Your task to perform on an android device: Add "razer blade" to the cart on target, then select checkout. Image 0: 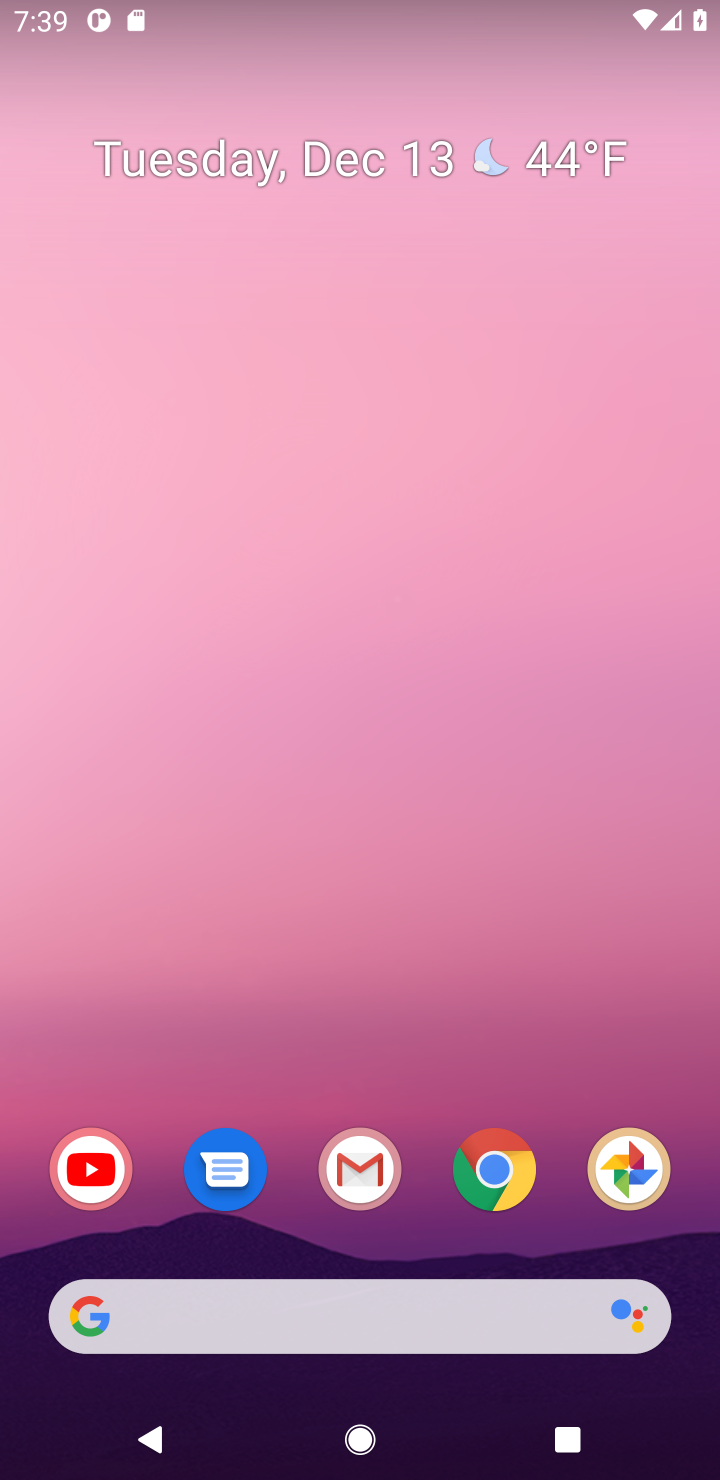
Step 0: click (515, 1158)
Your task to perform on an android device: Add "razer blade" to the cart on target, then select checkout. Image 1: 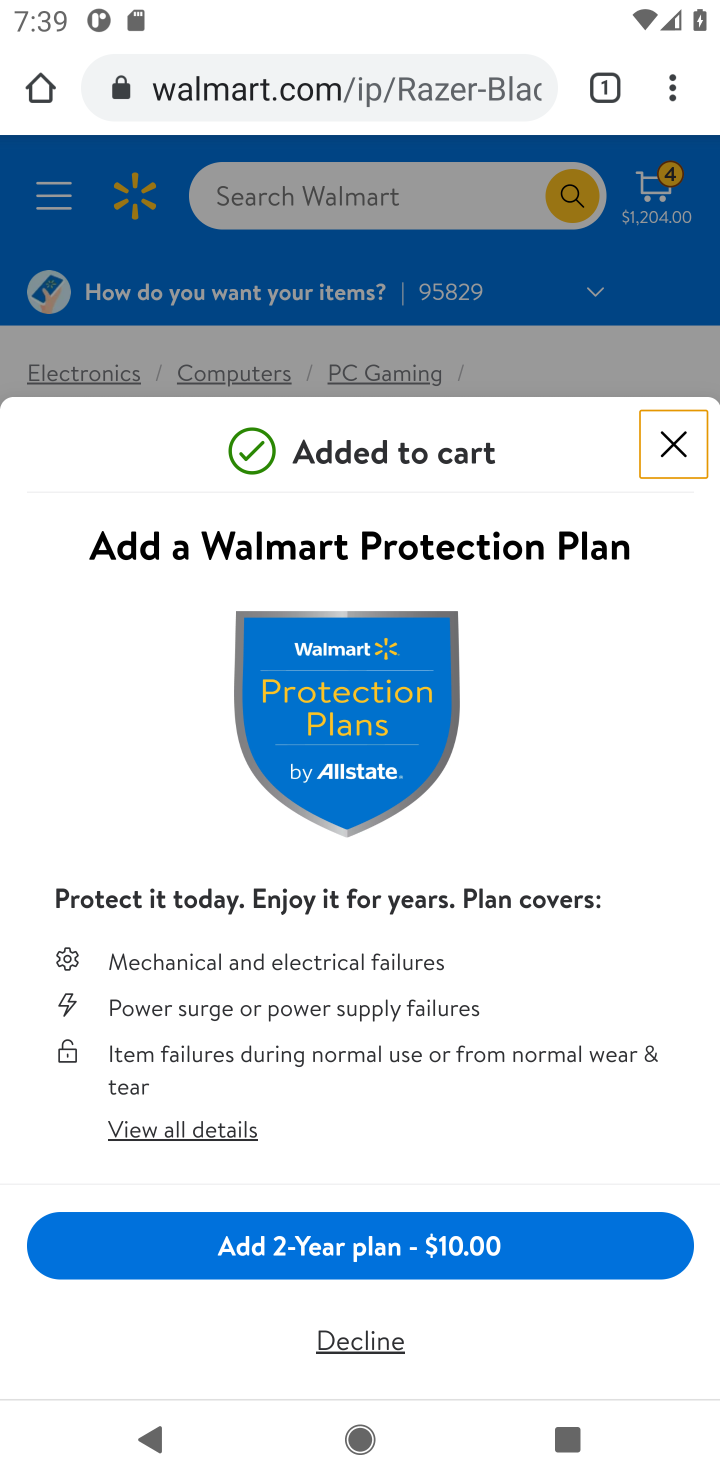
Step 1: click (658, 446)
Your task to perform on an android device: Add "razer blade" to the cart on target, then select checkout. Image 2: 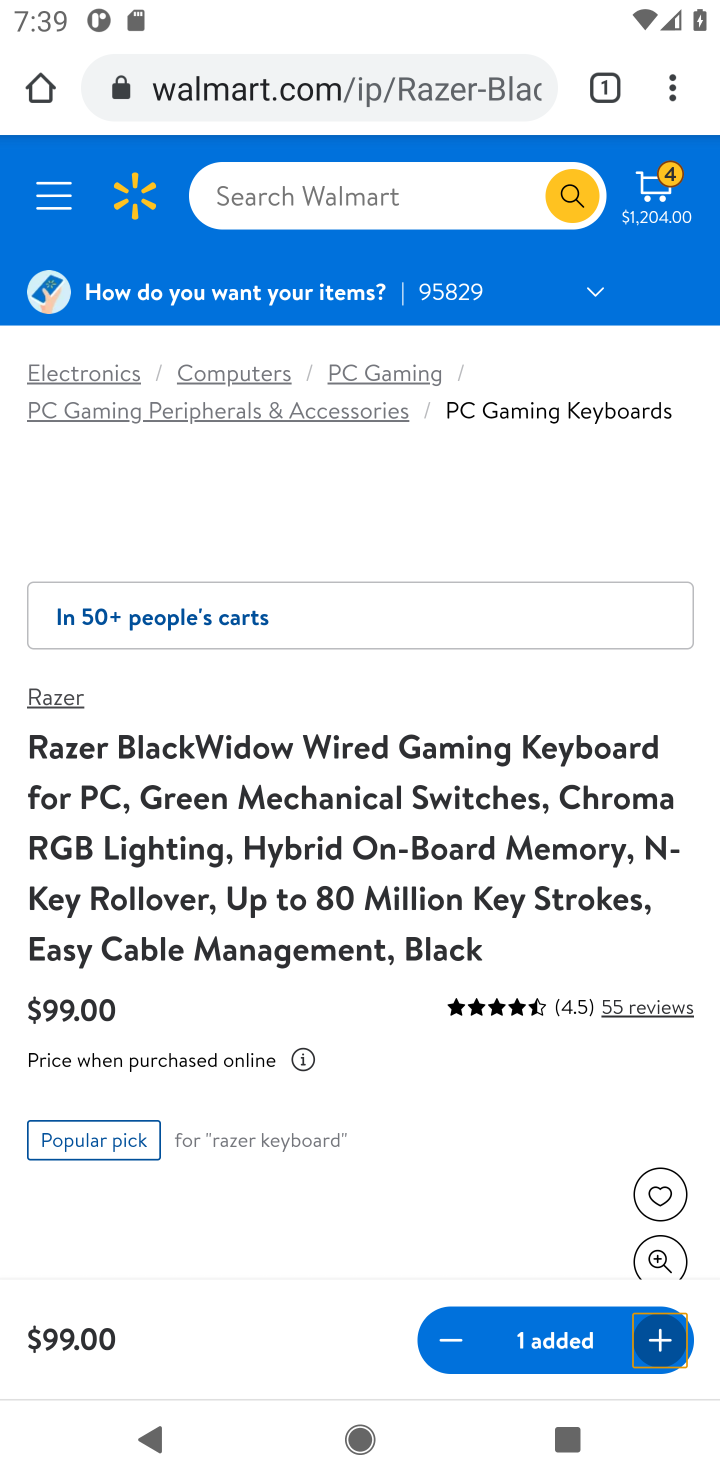
Step 2: click (349, 119)
Your task to perform on an android device: Add "razer blade" to the cart on target, then select checkout. Image 3: 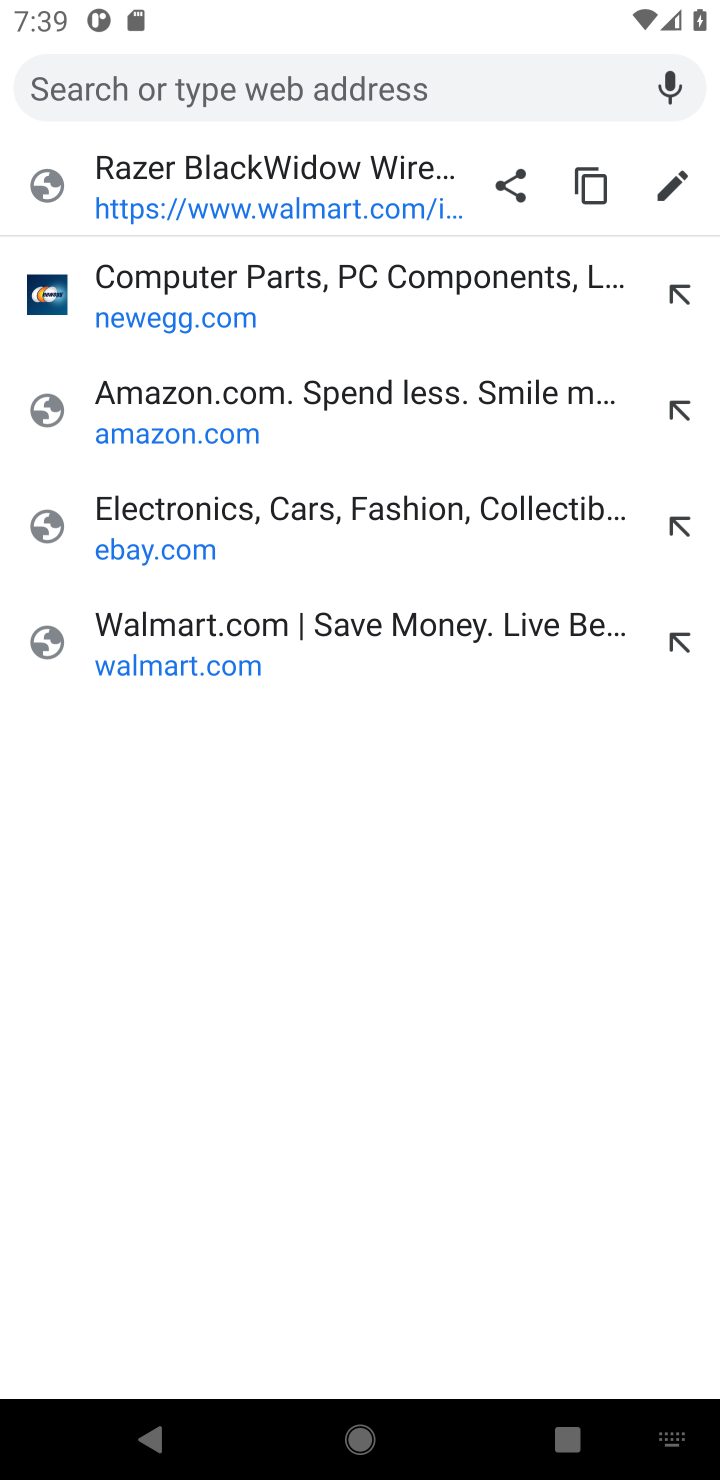
Step 3: type "target"
Your task to perform on an android device: Add "razer blade" to the cart on target, then select checkout. Image 4: 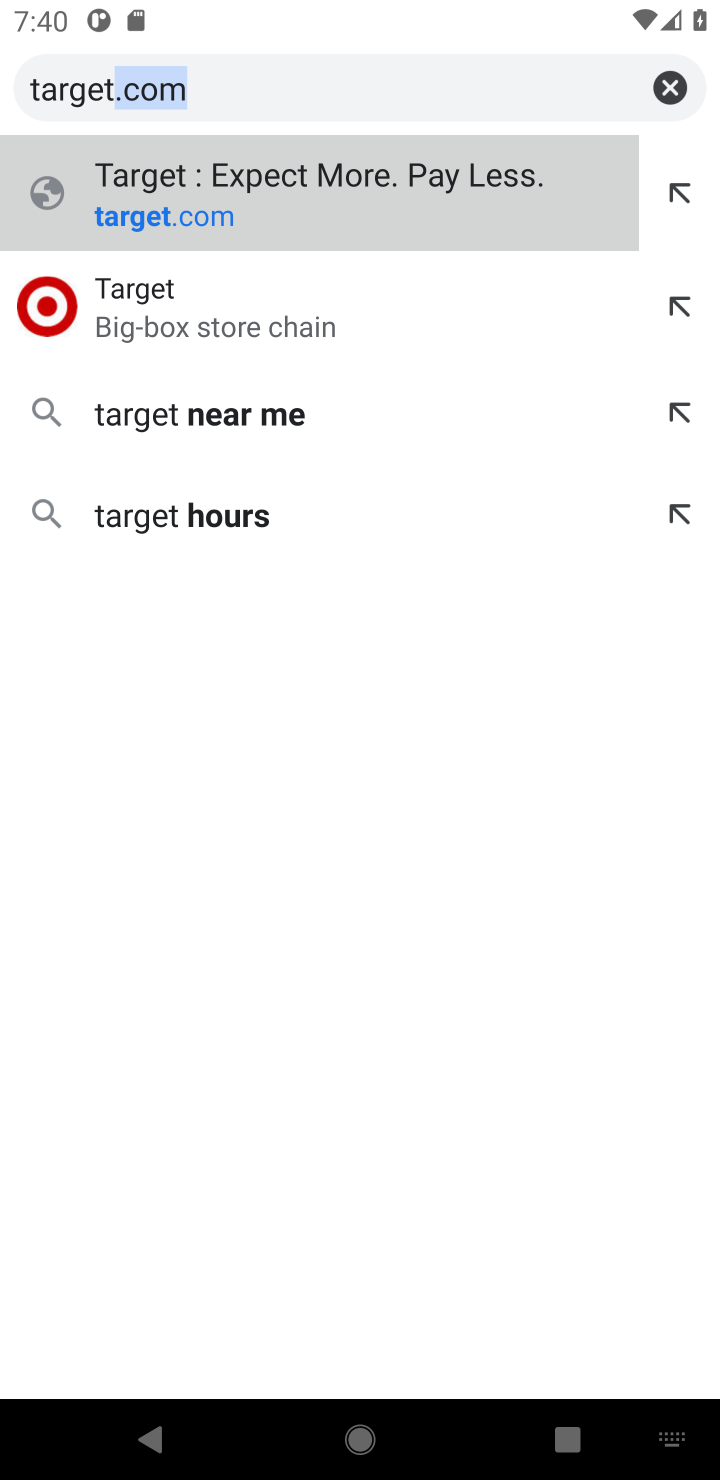
Step 4: click (280, 241)
Your task to perform on an android device: Add "razer blade" to the cart on target, then select checkout. Image 5: 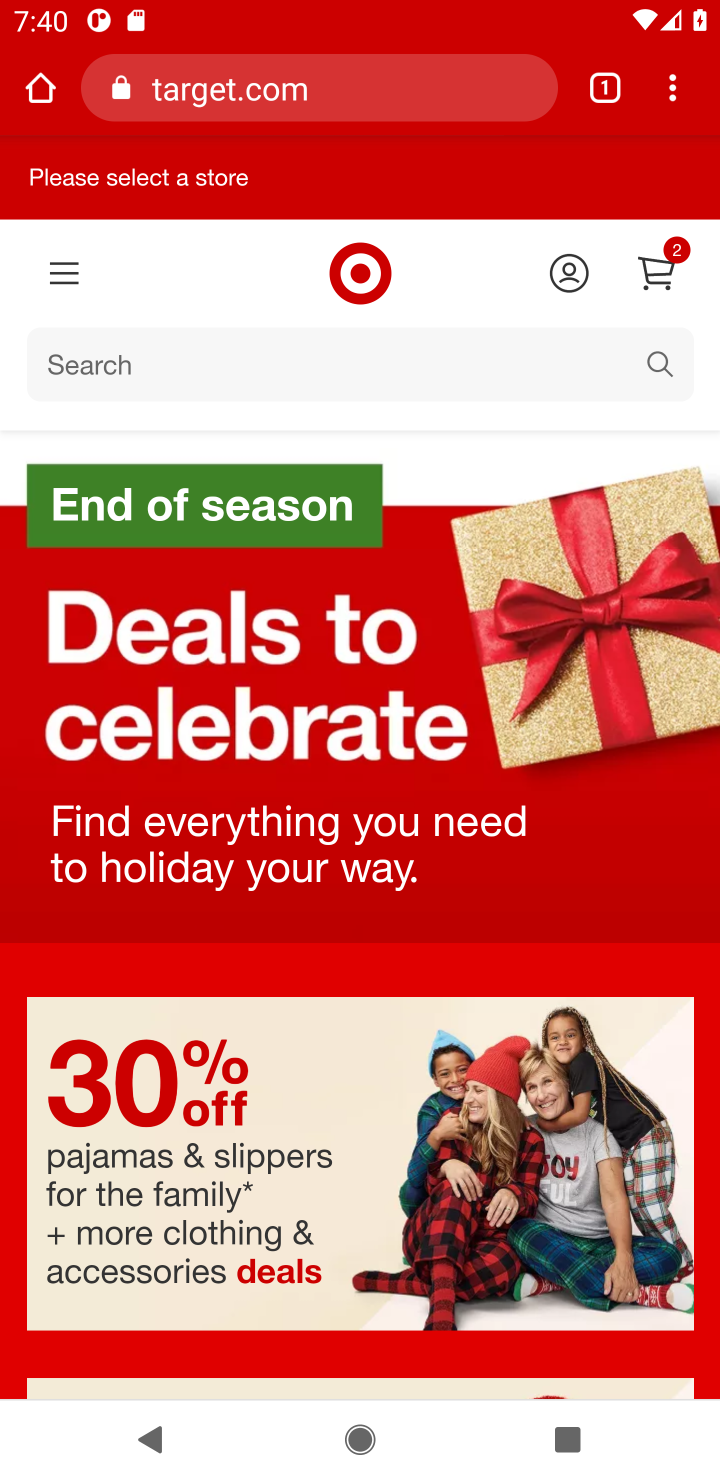
Step 5: click (270, 367)
Your task to perform on an android device: Add "razer blade" to the cart on target, then select checkout. Image 6: 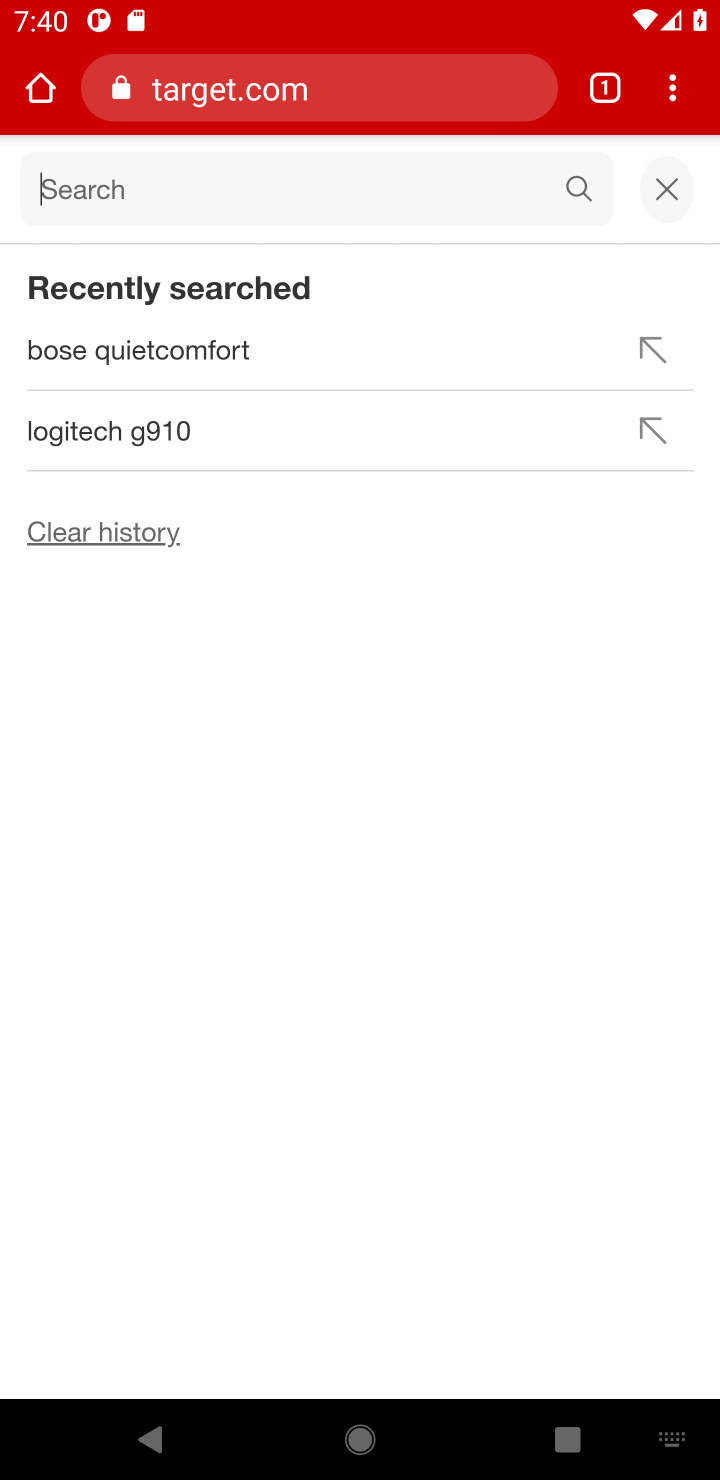
Step 6: type "razer blade"
Your task to perform on an android device: Add "razer blade" to the cart on target, then select checkout. Image 7: 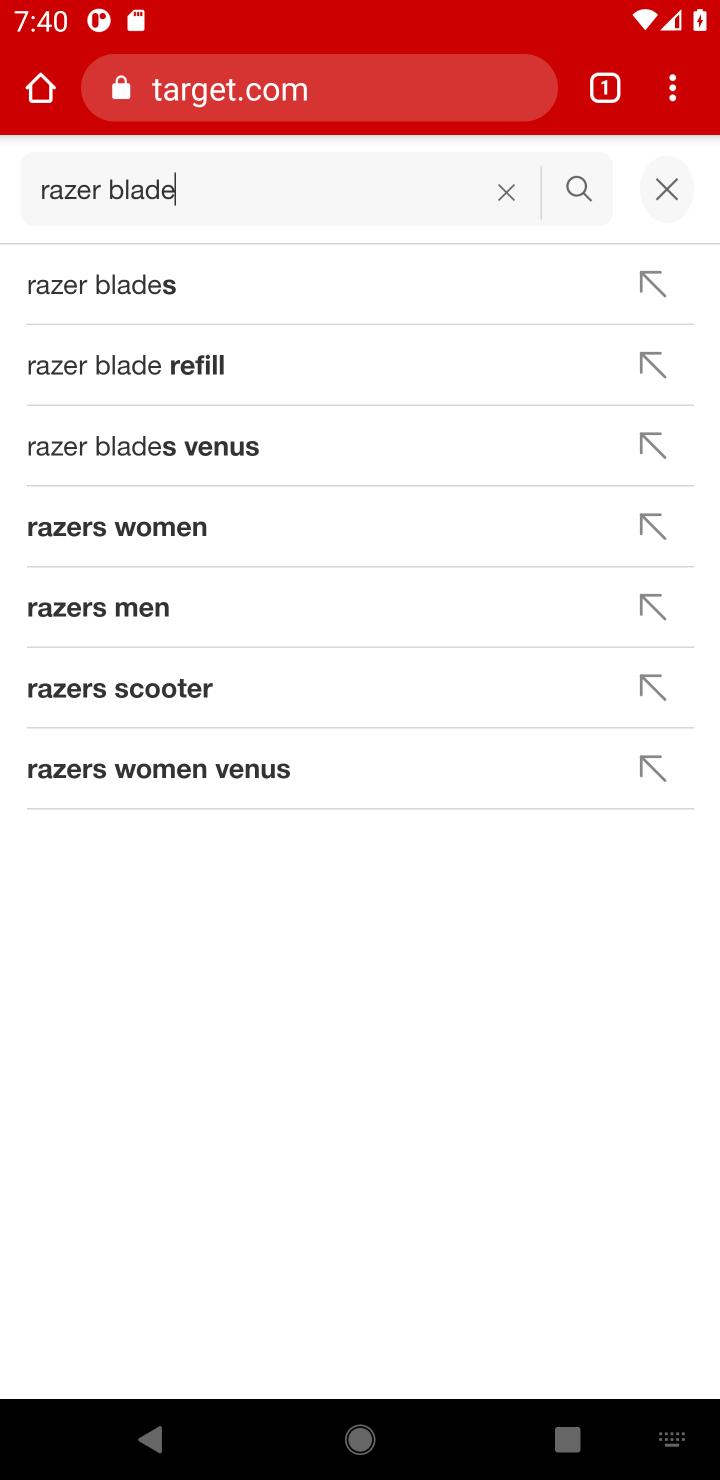
Step 7: click (561, 155)
Your task to perform on an android device: Add "razer blade" to the cart on target, then select checkout. Image 8: 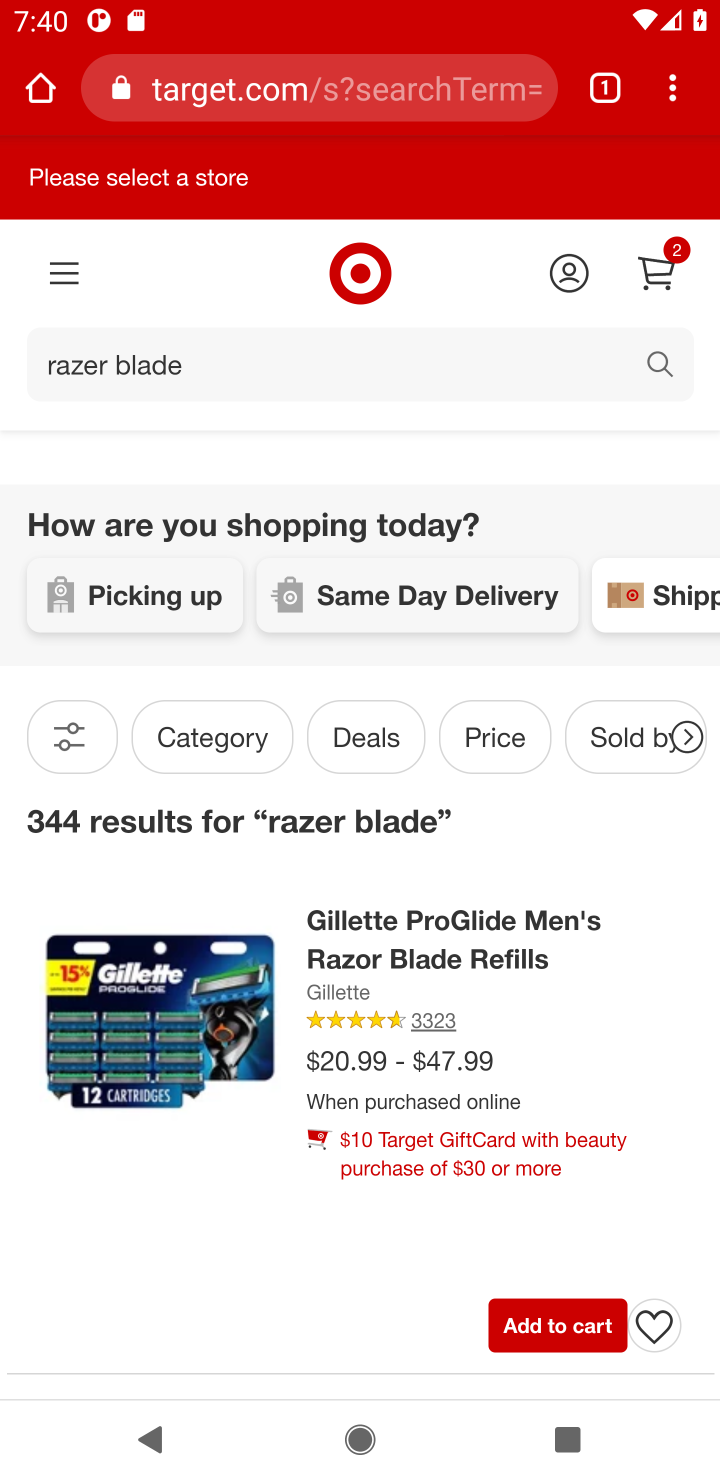
Step 8: click (531, 1345)
Your task to perform on an android device: Add "razer blade" to the cart on target, then select checkout. Image 9: 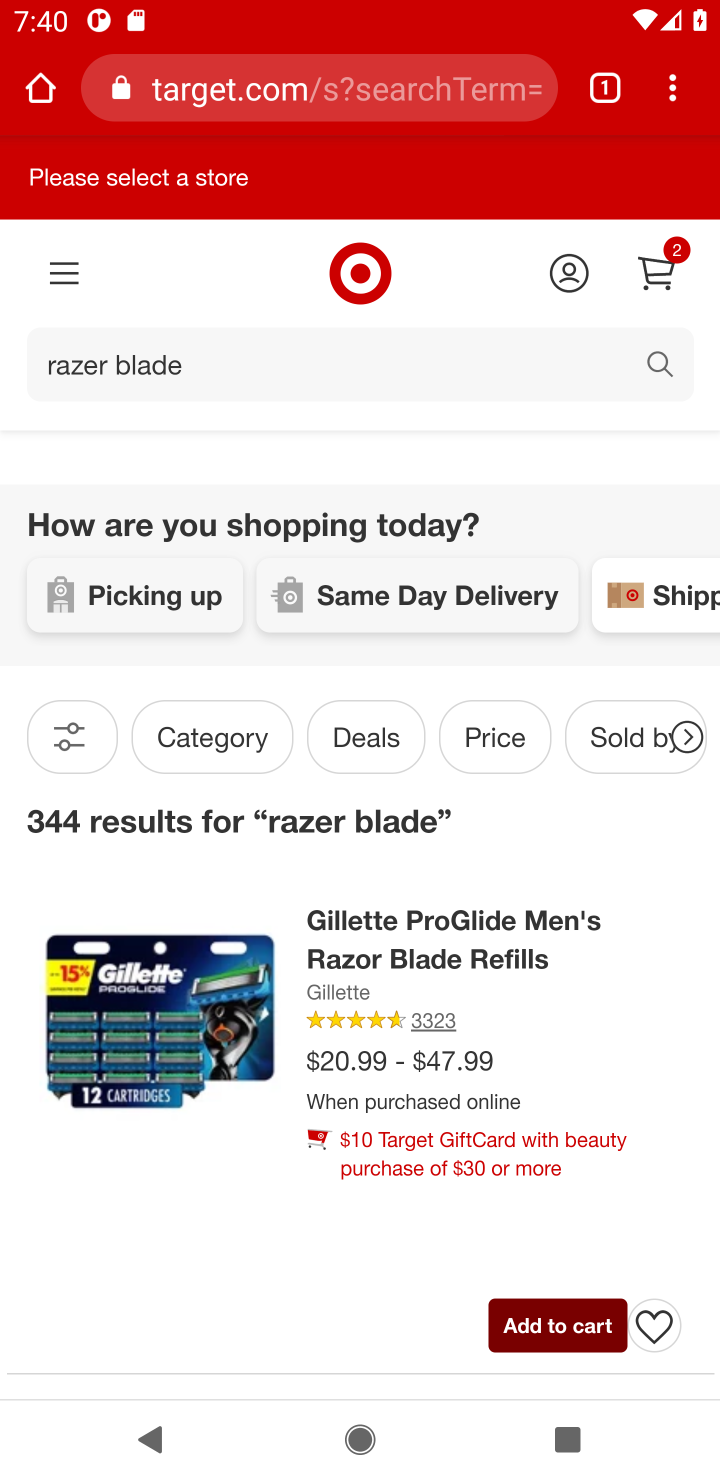
Step 9: task complete